Your task to perform on an android device: Open calendar and show me the fourth week of next month Image 0: 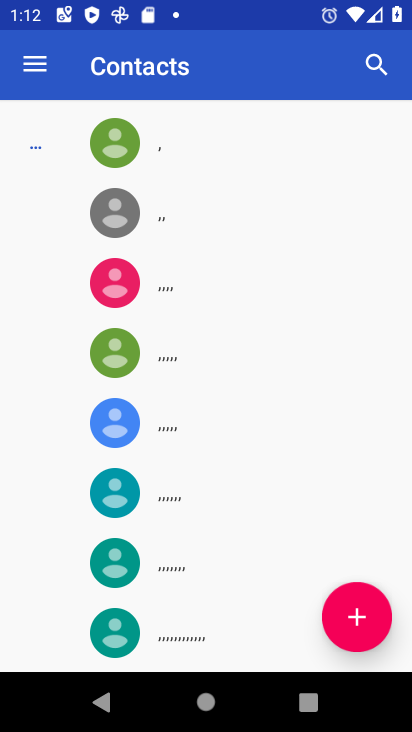
Step 0: press home button
Your task to perform on an android device: Open calendar and show me the fourth week of next month Image 1: 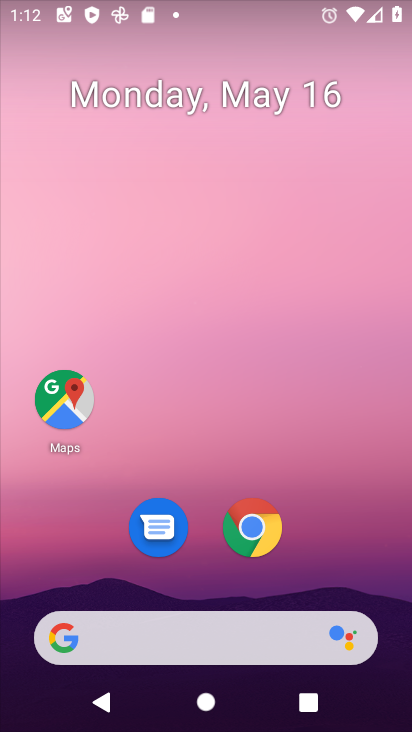
Step 1: drag from (310, 572) to (281, 147)
Your task to perform on an android device: Open calendar and show me the fourth week of next month Image 2: 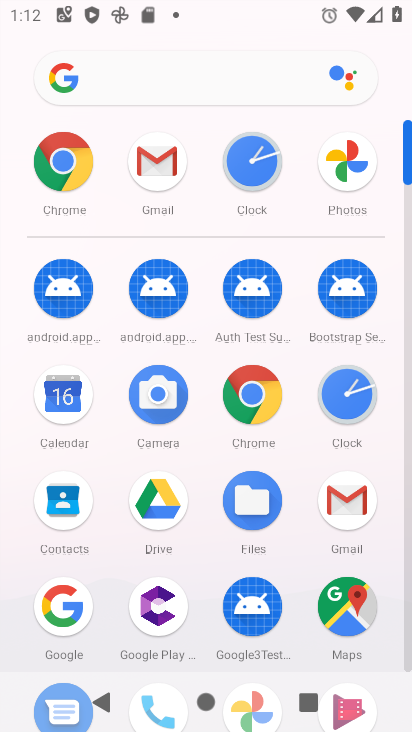
Step 2: click (406, 661)
Your task to perform on an android device: Open calendar and show me the fourth week of next month Image 3: 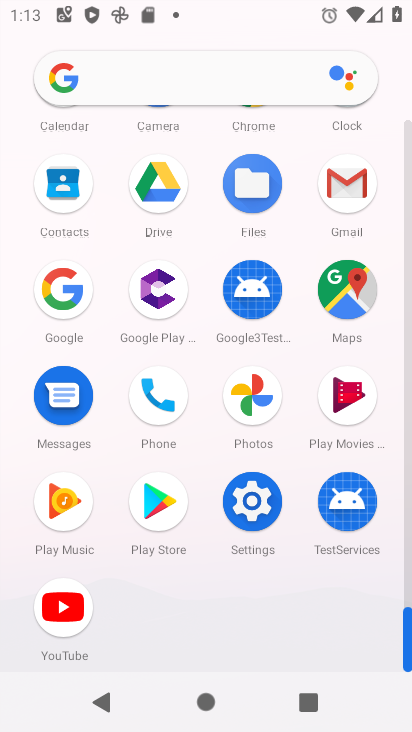
Step 3: click (405, 131)
Your task to perform on an android device: Open calendar and show me the fourth week of next month Image 4: 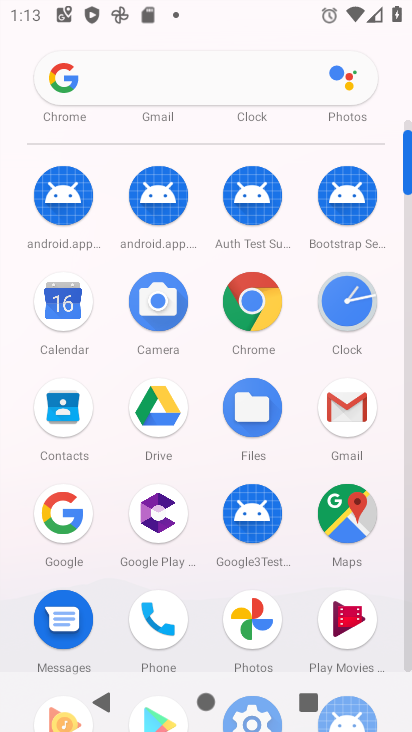
Step 4: click (50, 332)
Your task to perform on an android device: Open calendar and show me the fourth week of next month Image 5: 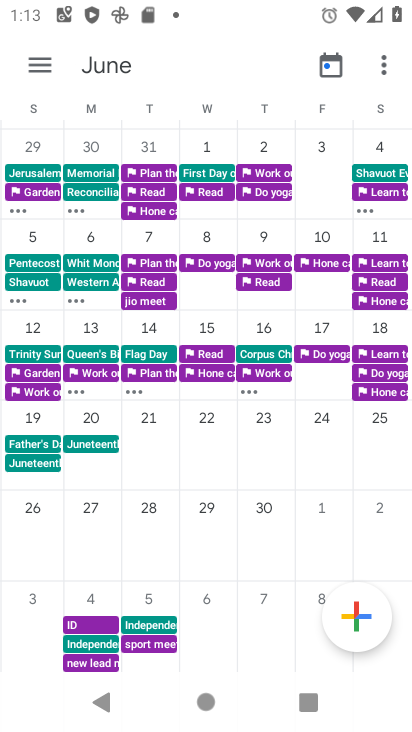
Step 5: click (227, 534)
Your task to perform on an android device: Open calendar and show me the fourth week of next month Image 6: 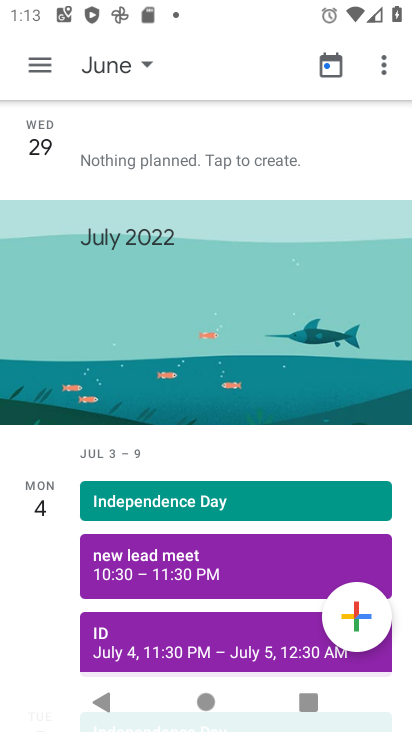
Step 6: task complete